Your task to perform on an android device: Open the web browser Image 0: 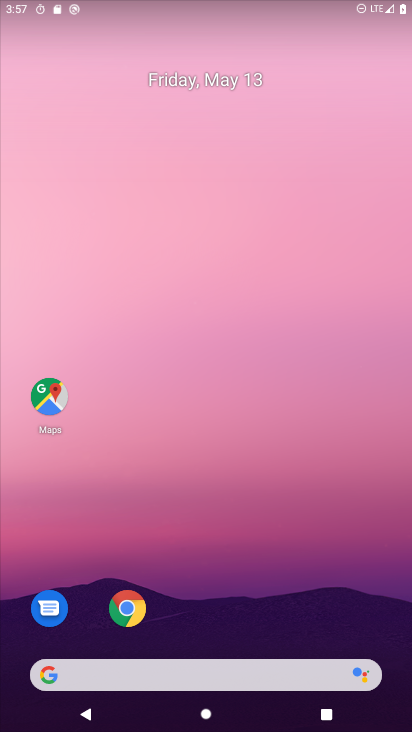
Step 0: click (129, 620)
Your task to perform on an android device: Open the web browser Image 1: 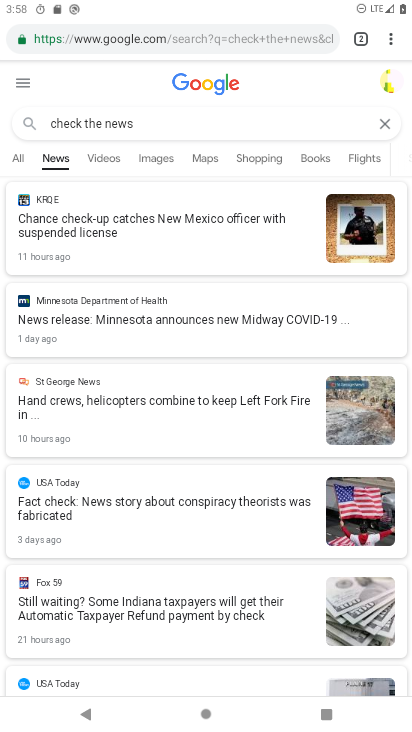
Step 1: click (383, 122)
Your task to perform on an android device: Open the web browser Image 2: 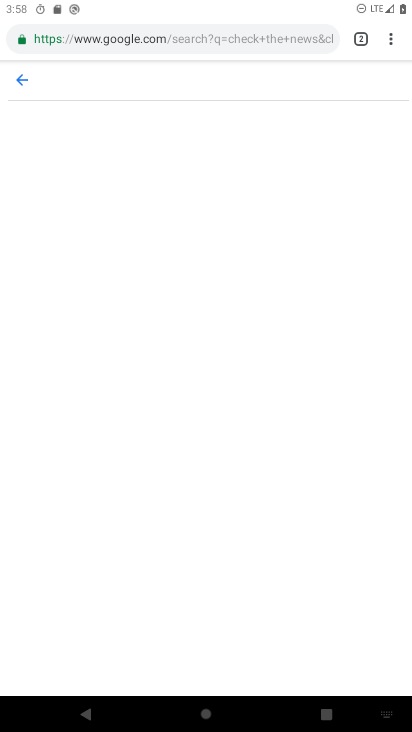
Step 2: type "web browser"
Your task to perform on an android device: Open the web browser Image 3: 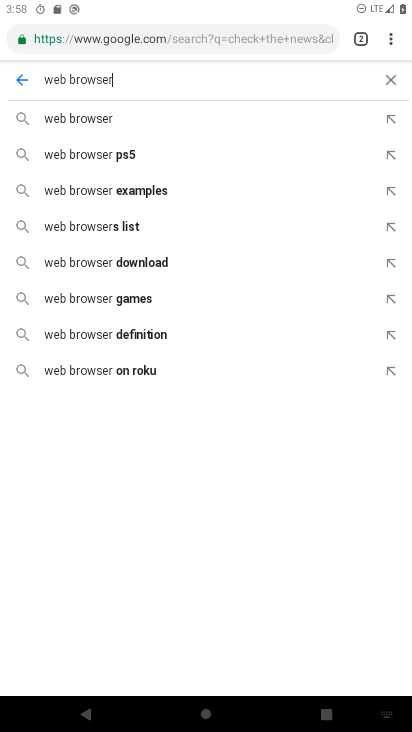
Step 3: click (64, 116)
Your task to perform on an android device: Open the web browser Image 4: 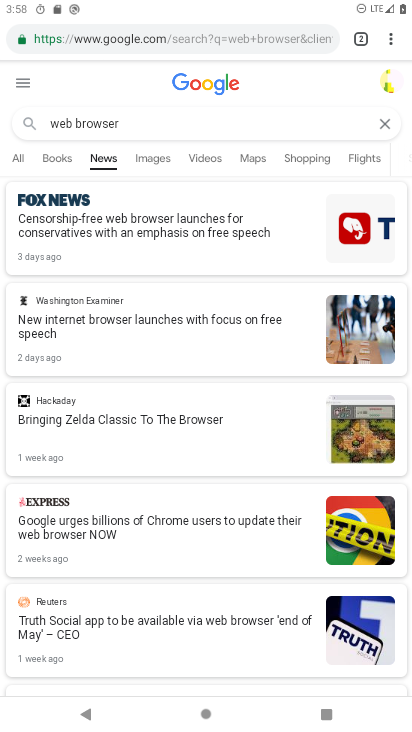
Step 4: task complete